Your task to perform on an android device: visit the assistant section in the google photos Image 0: 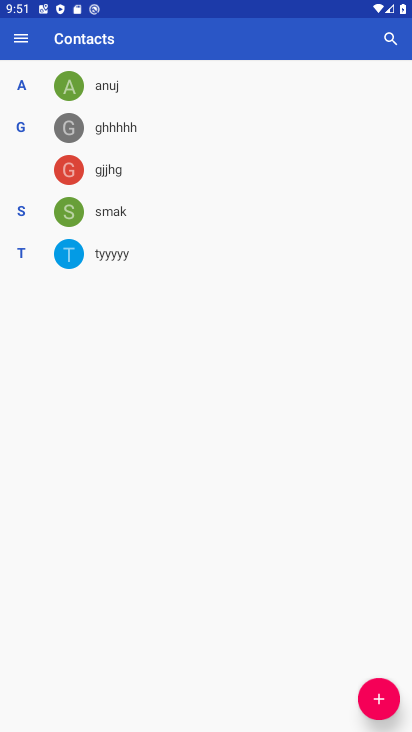
Step 0: press home button
Your task to perform on an android device: visit the assistant section in the google photos Image 1: 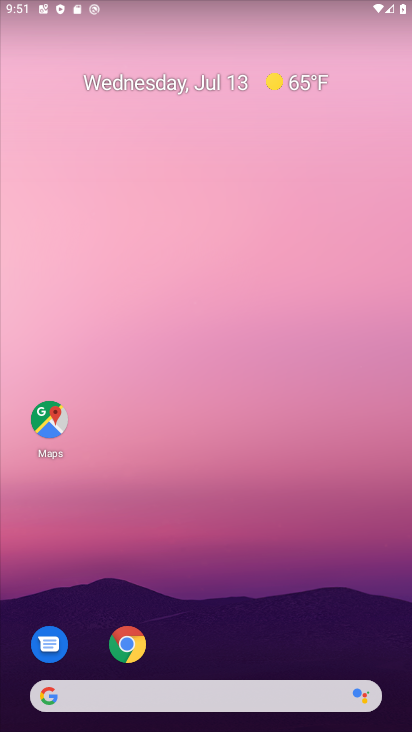
Step 1: drag from (240, 638) to (211, 126)
Your task to perform on an android device: visit the assistant section in the google photos Image 2: 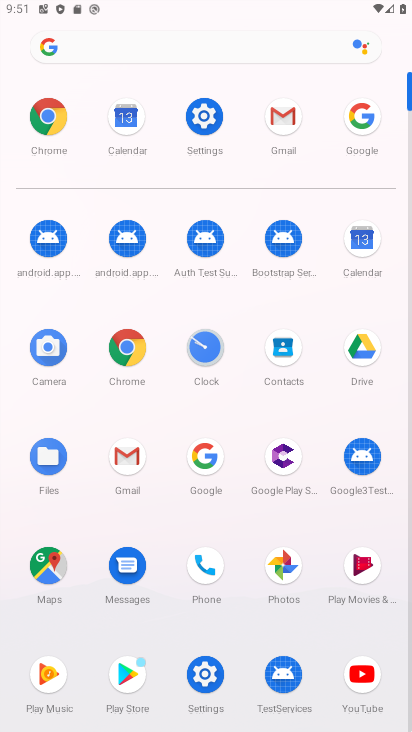
Step 2: click (287, 553)
Your task to perform on an android device: visit the assistant section in the google photos Image 3: 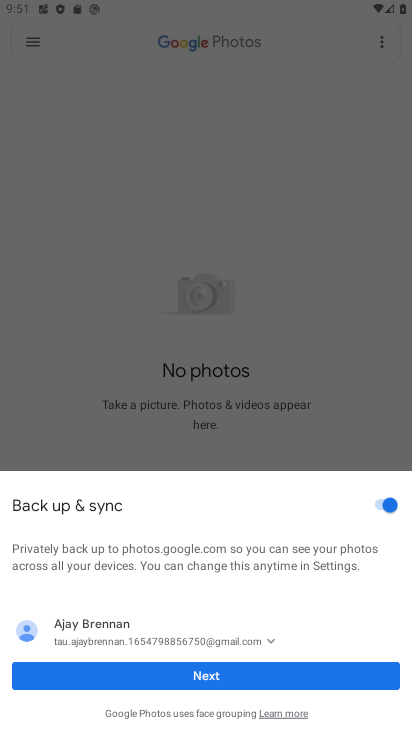
Step 3: click (189, 683)
Your task to perform on an android device: visit the assistant section in the google photos Image 4: 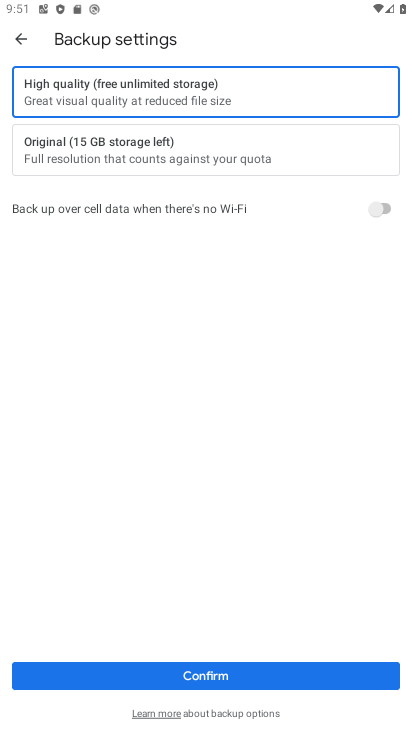
Step 4: click (12, 37)
Your task to perform on an android device: visit the assistant section in the google photos Image 5: 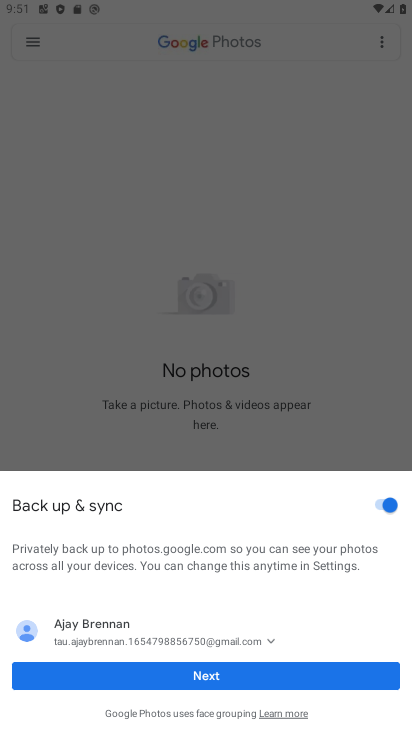
Step 5: press back button
Your task to perform on an android device: visit the assistant section in the google photos Image 6: 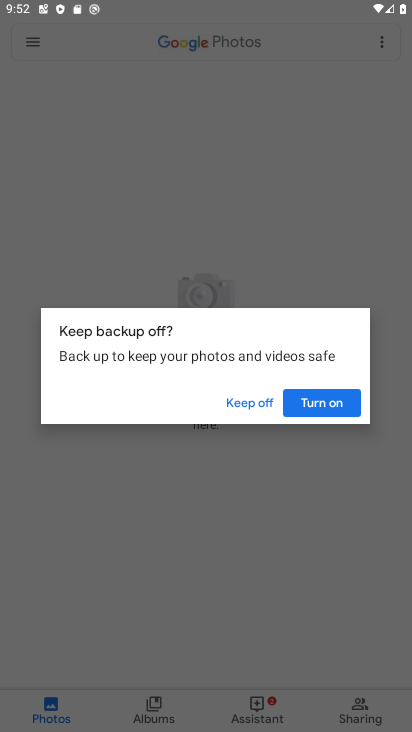
Step 6: click (246, 408)
Your task to perform on an android device: visit the assistant section in the google photos Image 7: 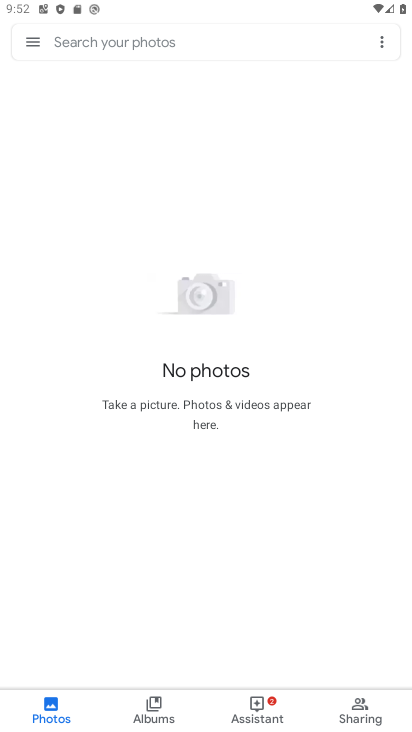
Step 7: click (258, 712)
Your task to perform on an android device: visit the assistant section in the google photos Image 8: 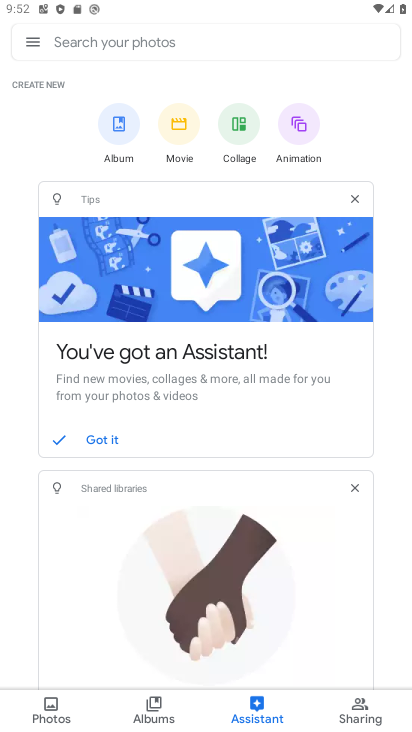
Step 8: task complete